Your task to perform on an android device: Open a new private window in Chrome Image 0: 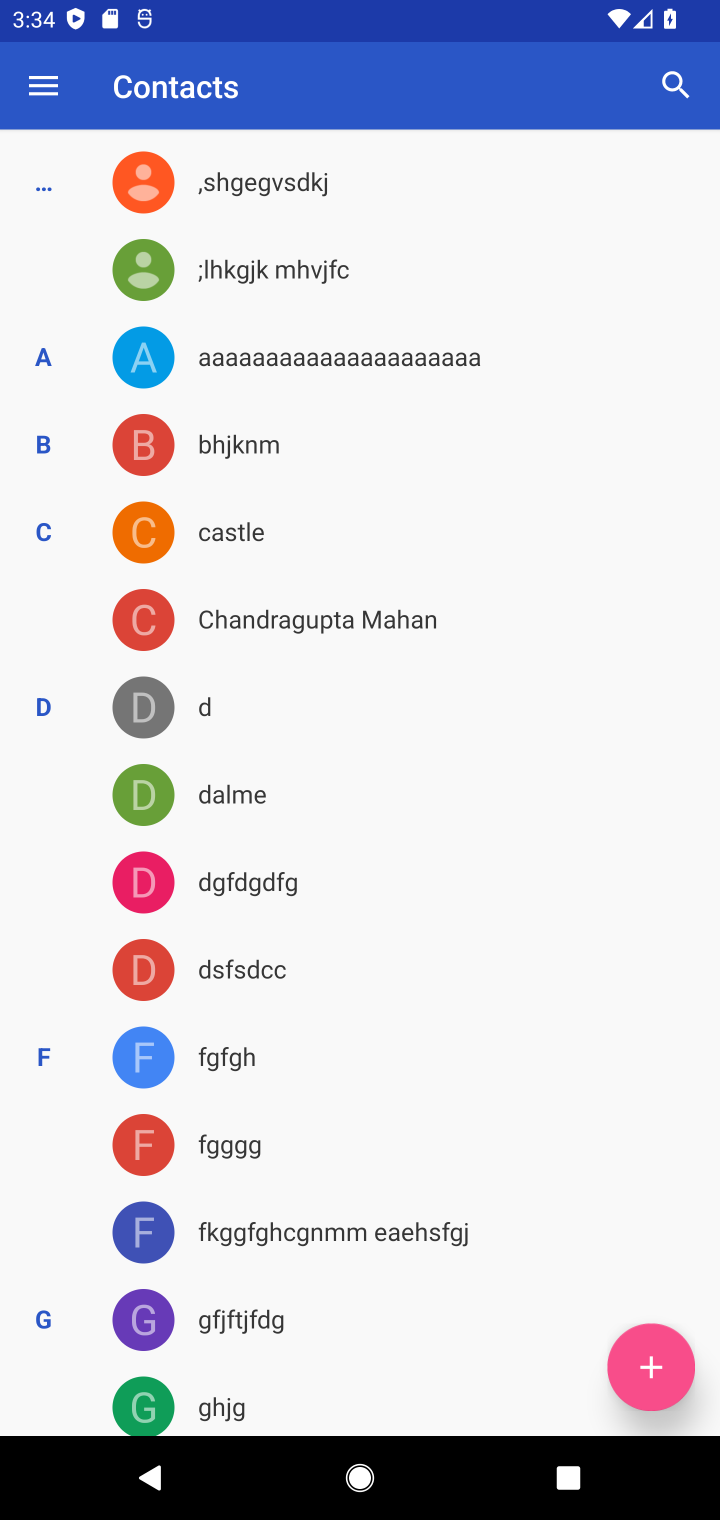
Step 0: press home button
Your task to perform on an android device: Open a new private window in Chrome Image 1: 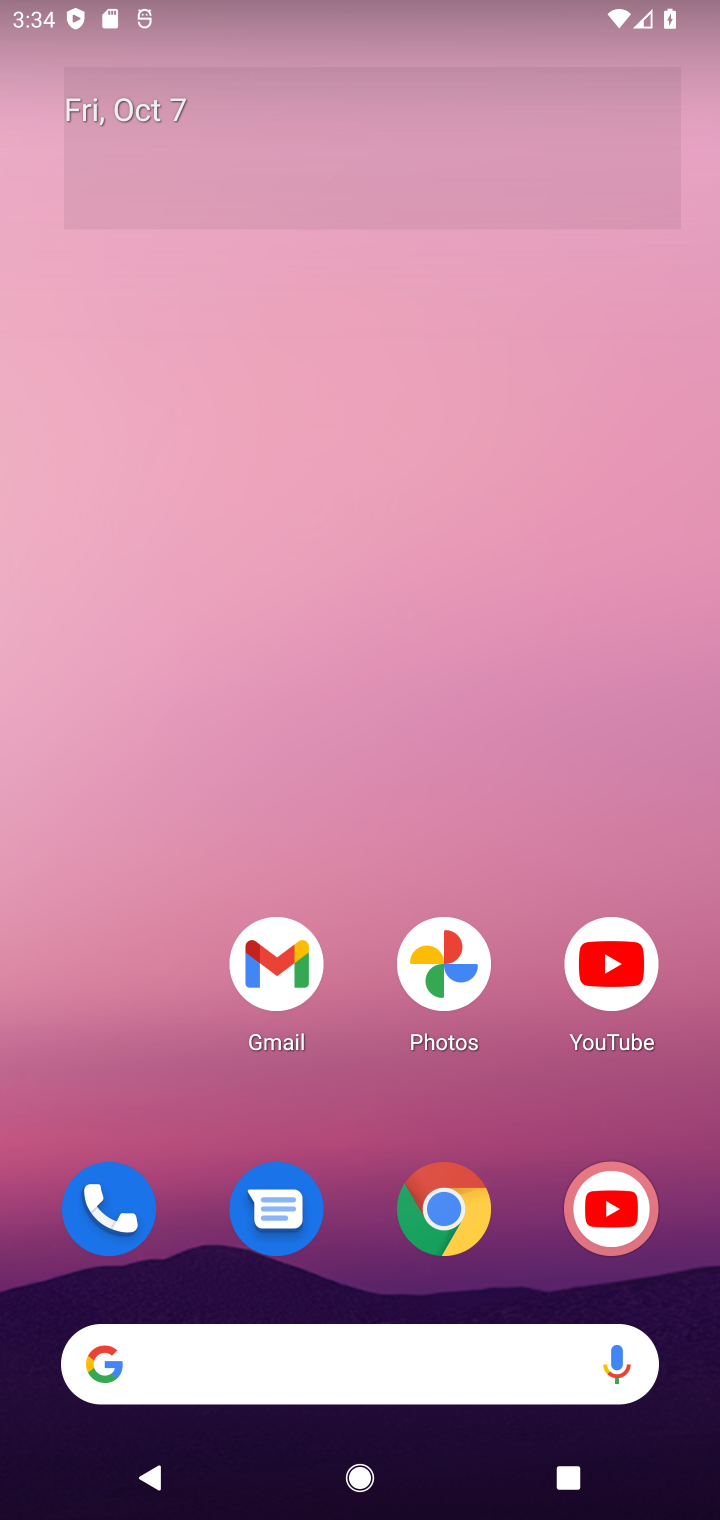
Step 1: drag from (150, 1078) to (133, 197)
Your task to perform on an android device: Open a new private window in Chrome Image 2: 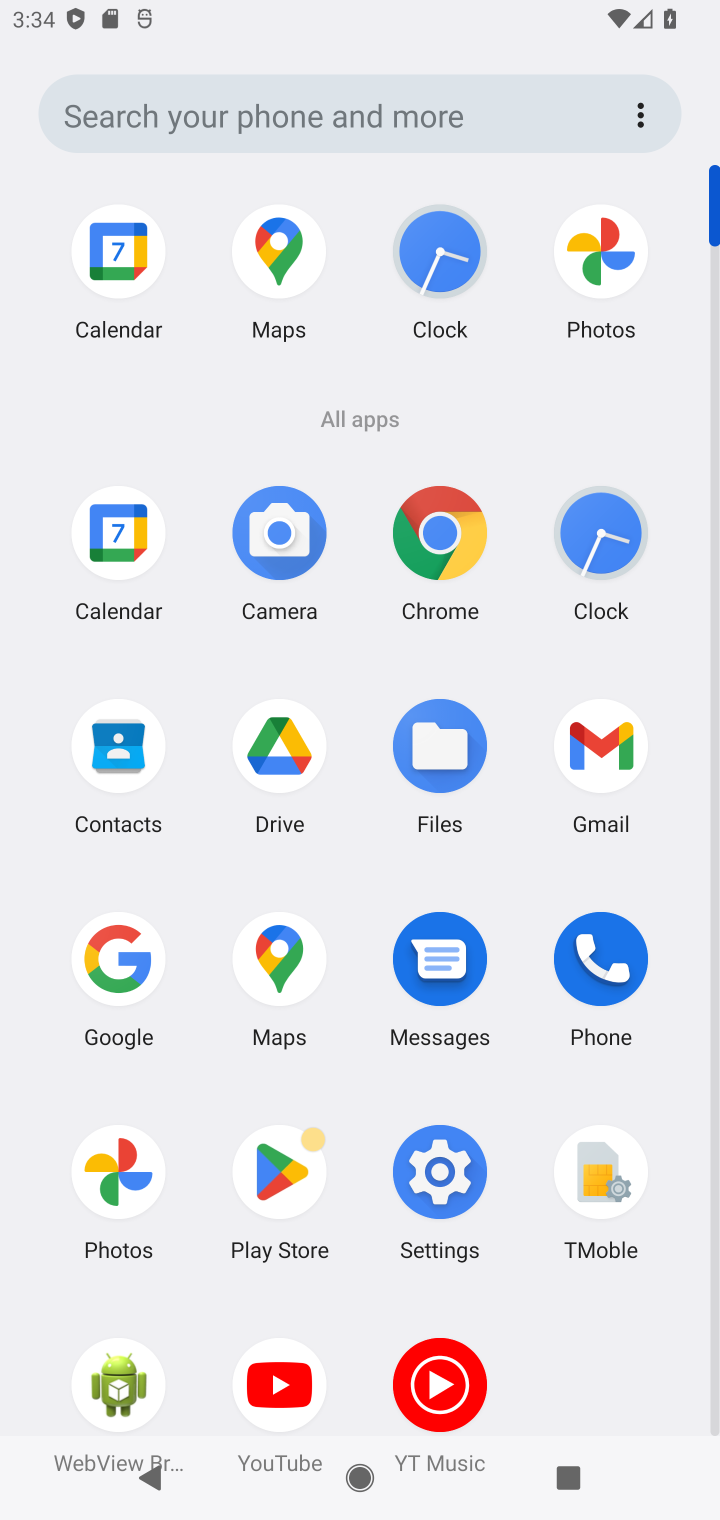
Step 2: click (443, 548)
Your task to perform on an android device: Open a new private window in Chrome Image 3: 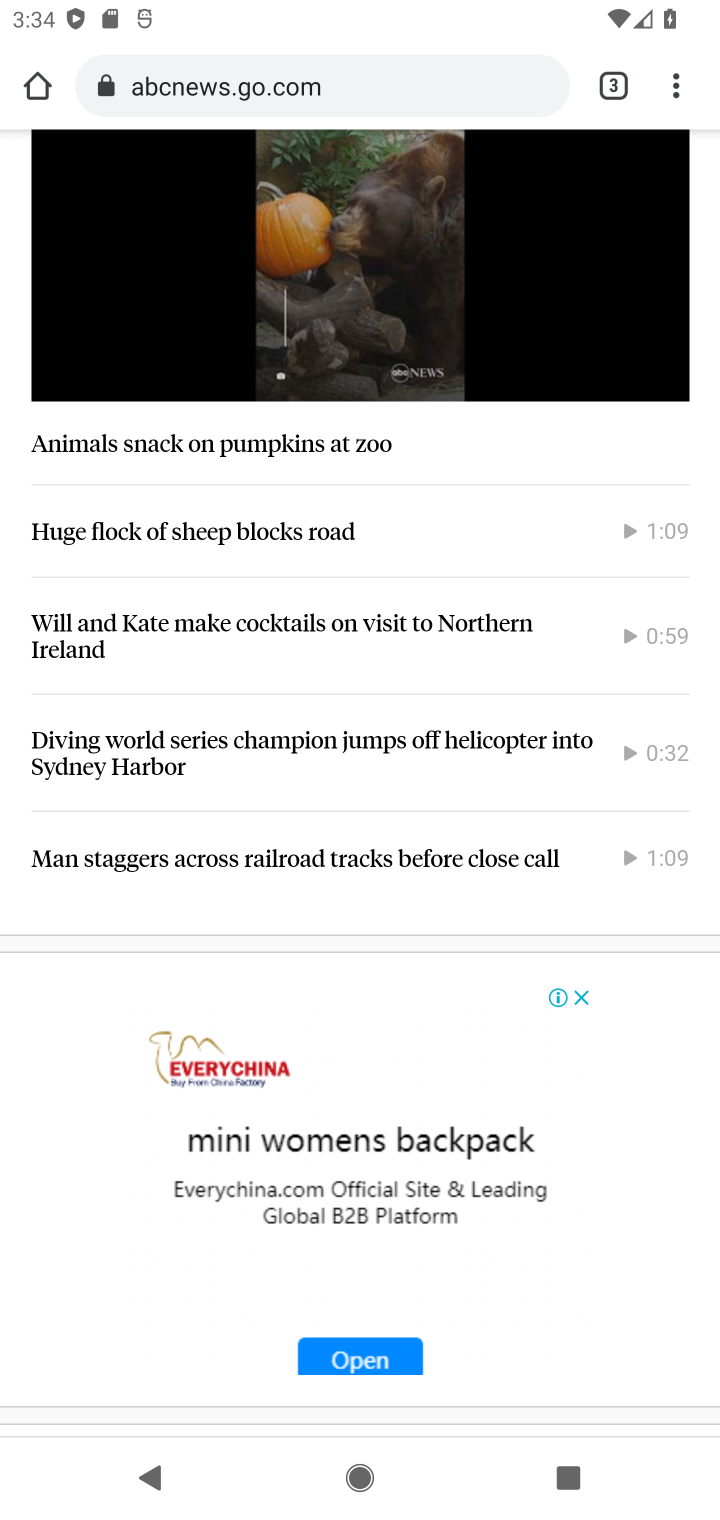
Step 3: click (674, 82)
Your task to perform on an android device: Open a new private window in Chrome Image 4: 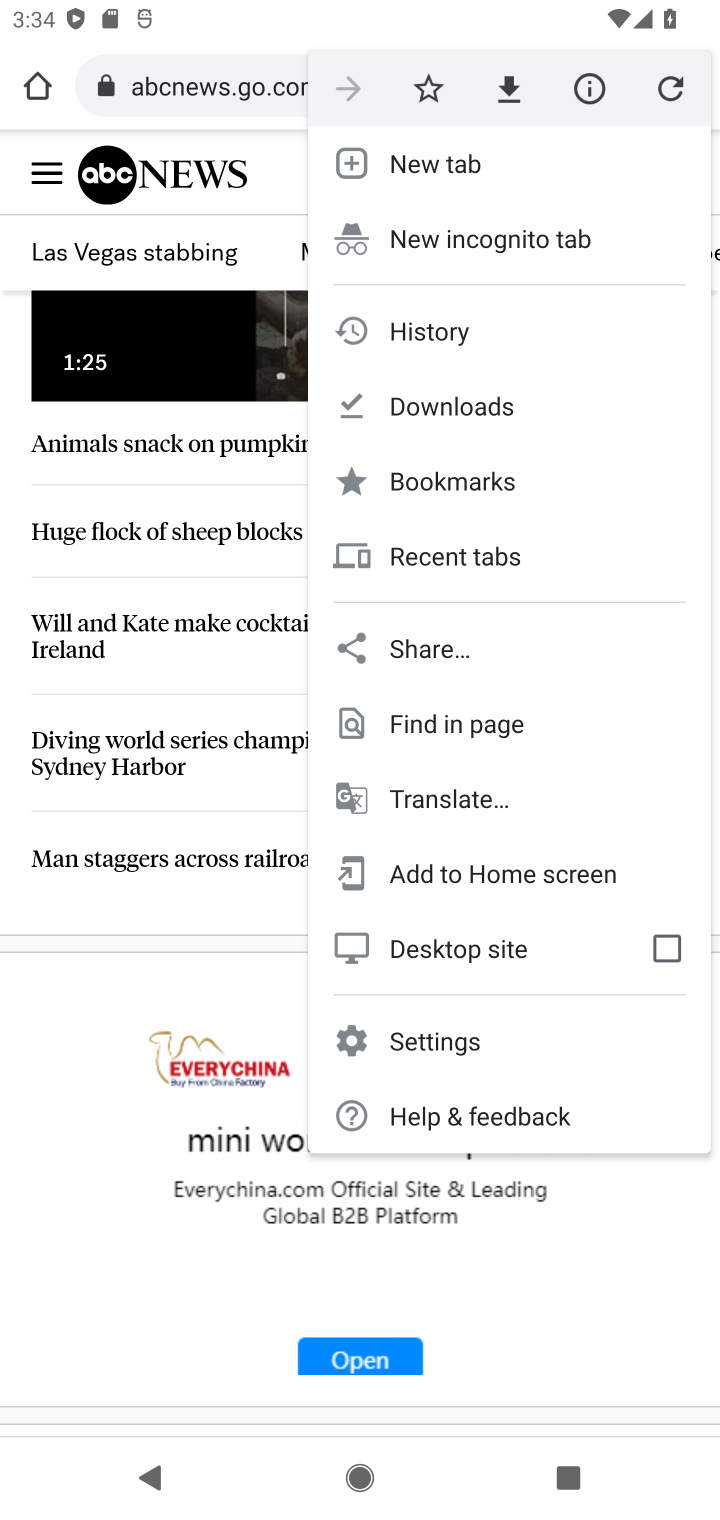
Step 4: click (457, 166)
Your task to perform on an android device: Open a new private window in Chrome Image 5: 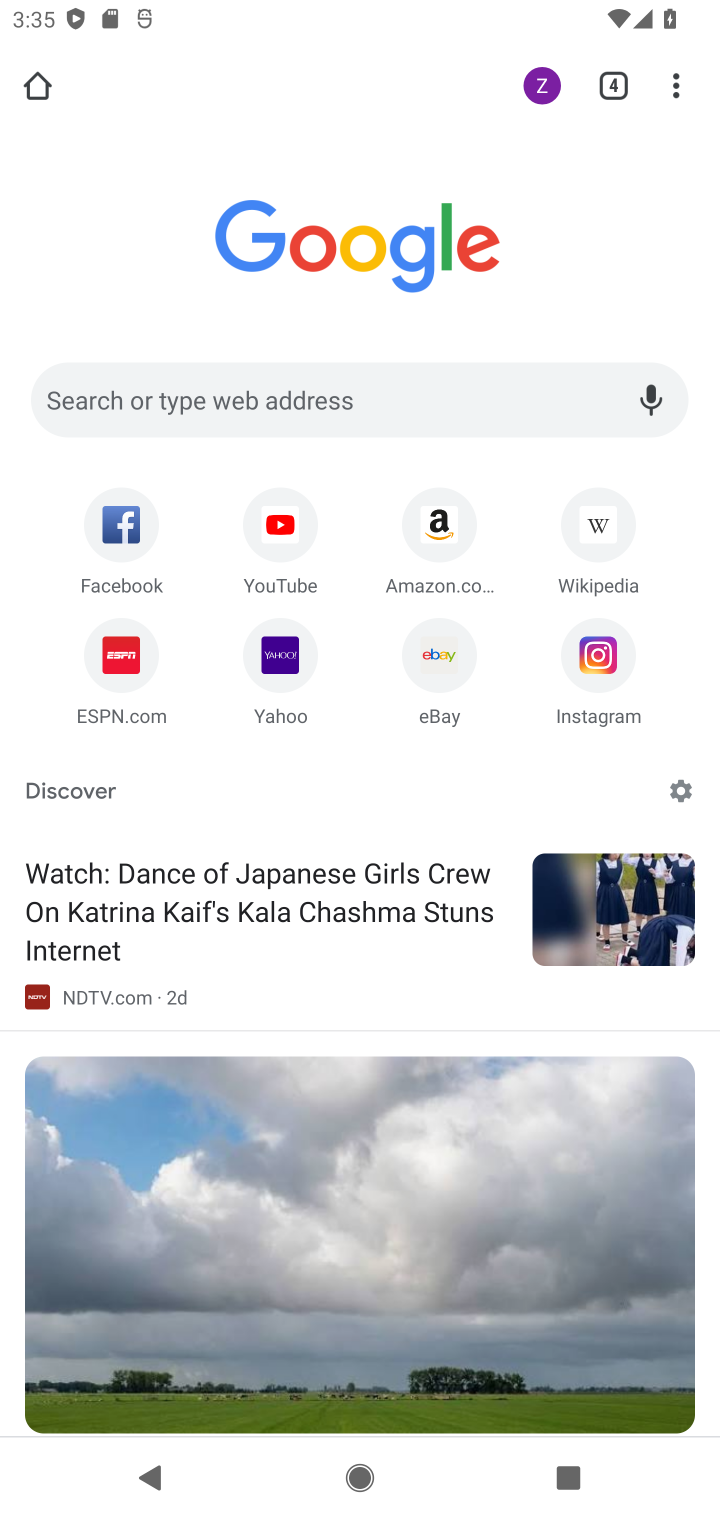
Step 5: task complete